Your task to perform on an android device: open sync settings in chrome Image 0: 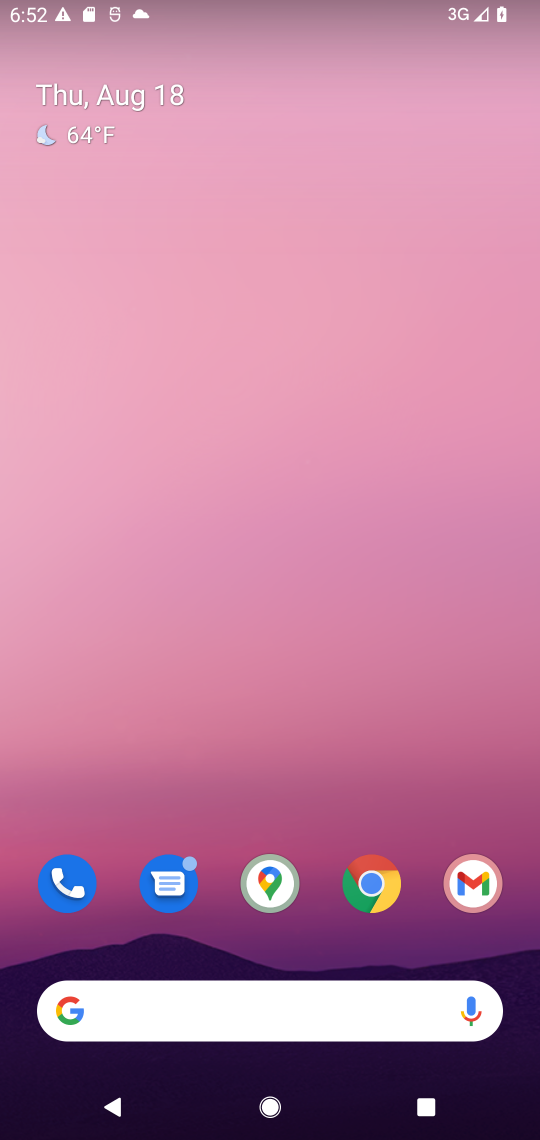
Step 0: click (382, 872)
Your task to perform on an android device: open sync settings in chrome Image 1: 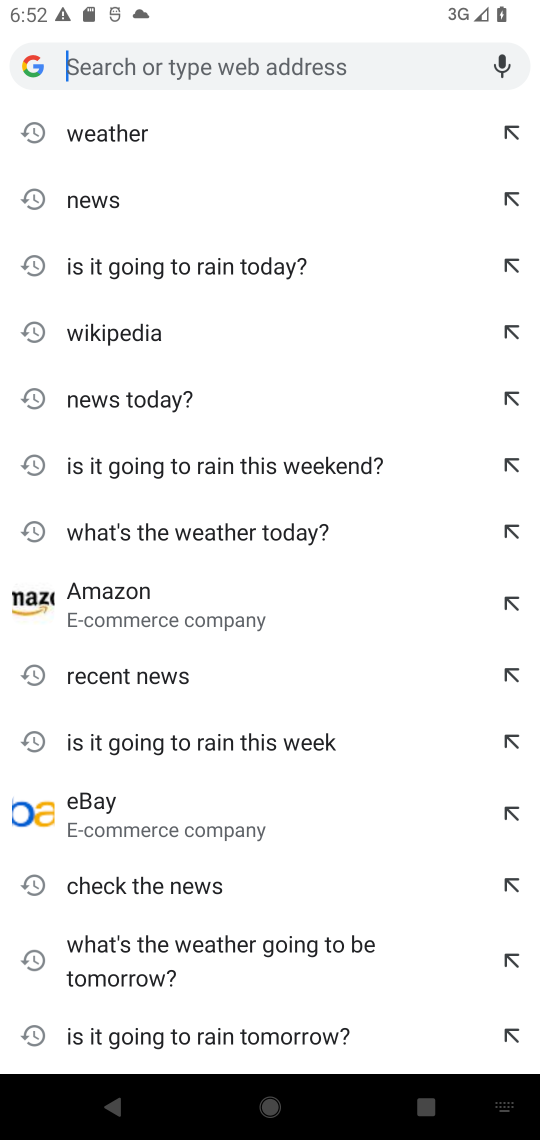
Step 1: task complete